Your task to perform on an android device: change your default location settings in chrome Image 0: 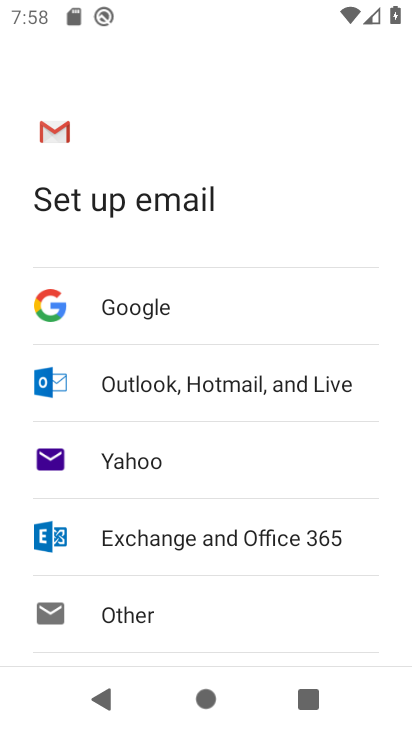
Step 0: press home button
Your task to perform on an android device: change your default location settings in chrome Image 1: 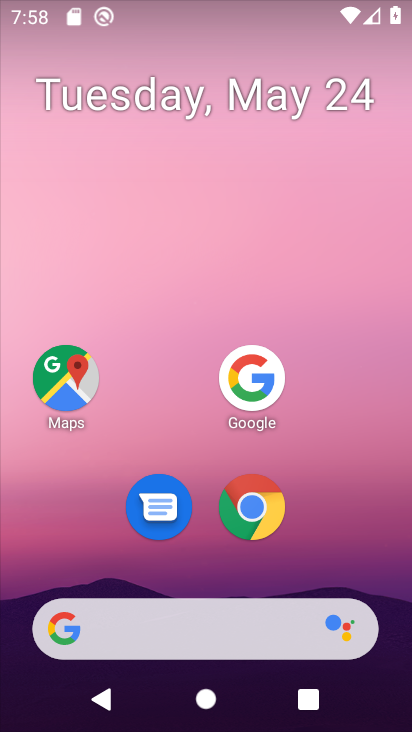
Step 1: click (247, 508)
Your task to perform on an android device: change your default location settings in chrome Image 2: 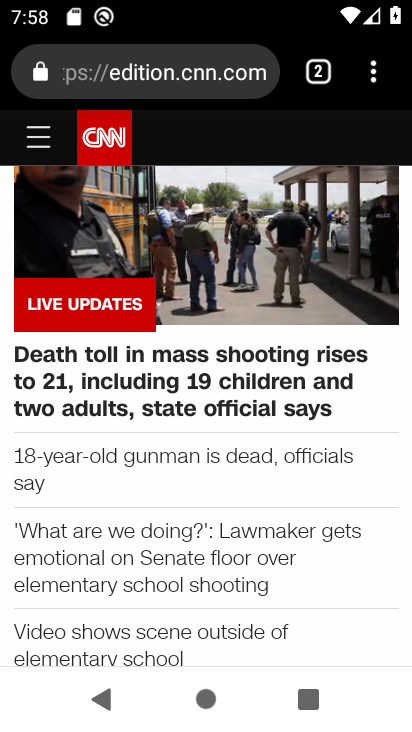
Step 2: drag from (375, 81) to (202, 514)
Your task to perform on an android device: change your default location settings in chrome Image 3: 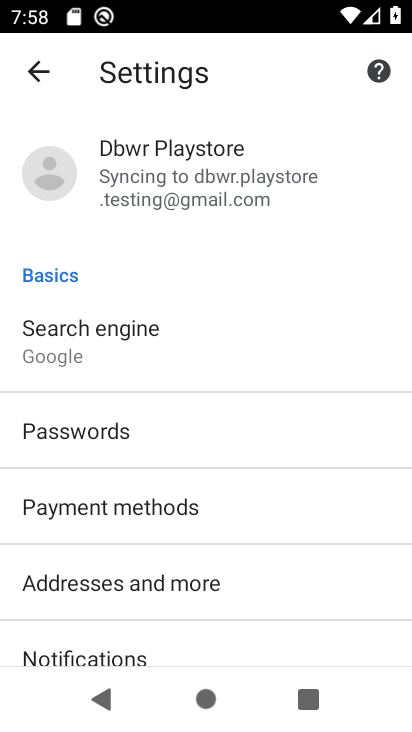
Step 3: drag from (187, 654) to (312, 207)
Your task to perform on an android device: change your default location settings in chrome Image 4: 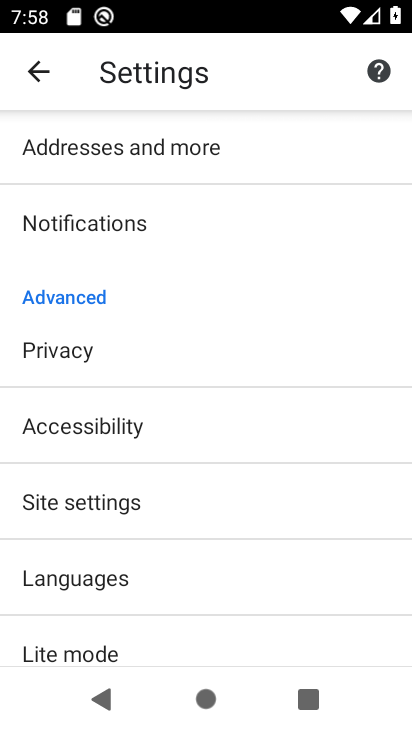
Step 4: click (74, 499)
Your task to perform on an android device: change your default location settings in chrome Image 5: 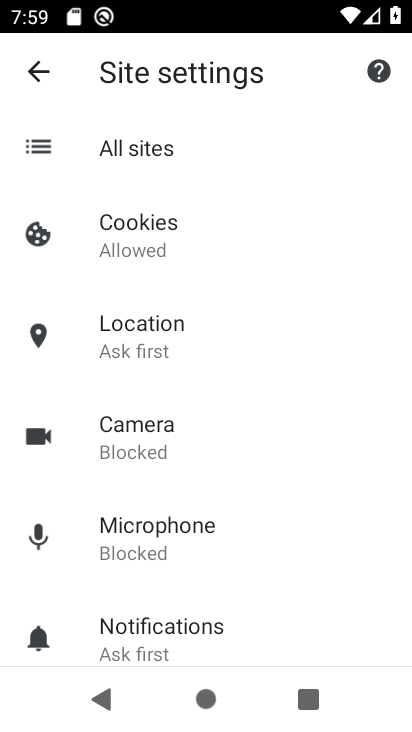
Step 5: click (143, 341)
Your task to perform on an android device: change your default location settings in chrome Image 6: 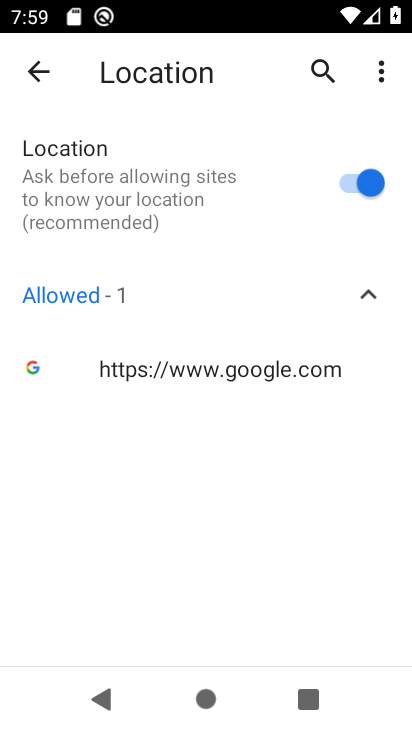
Step 6: click (348, 185)
Your task to perform on an android device: change your default location settings in chrome Image 7: 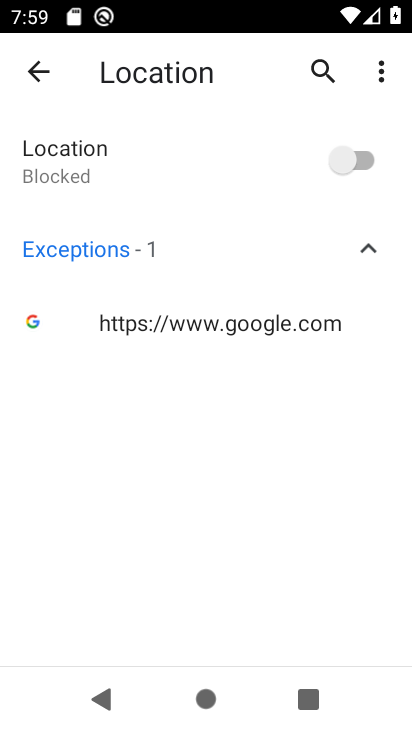
Step 7: task complete